Your task to perform on an android device: turn on translation in the chrome app Image 0: 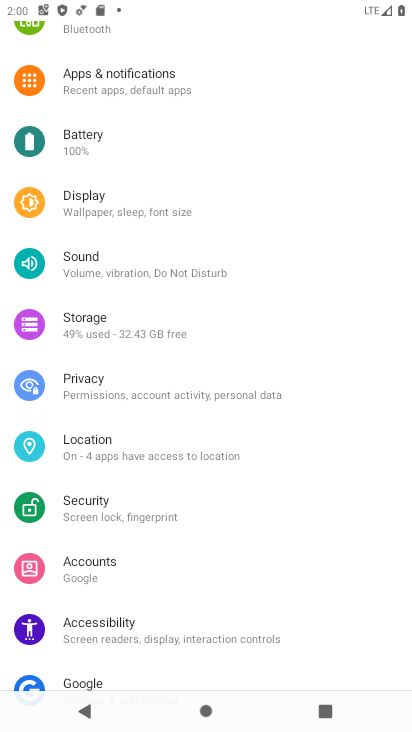
Step 0: press home button
Your task to perform on an android device: turn on translation in the chrome app Image 1: 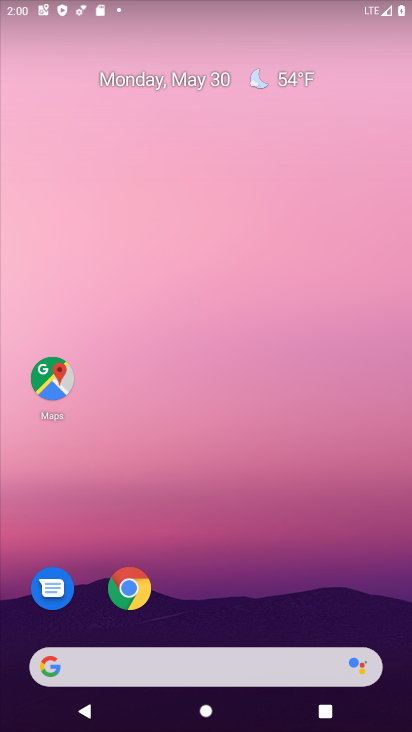
Step 1: click (125, 587)
Your task to perform on an android device: turn on translation in the chrome app Image 2: 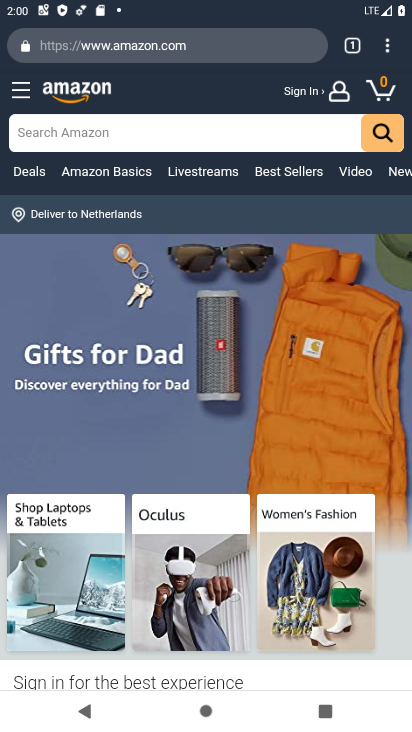
Step 2: click (383, 44)
Your task to perform on an android device: turn on translation in the chrome app Image 3: 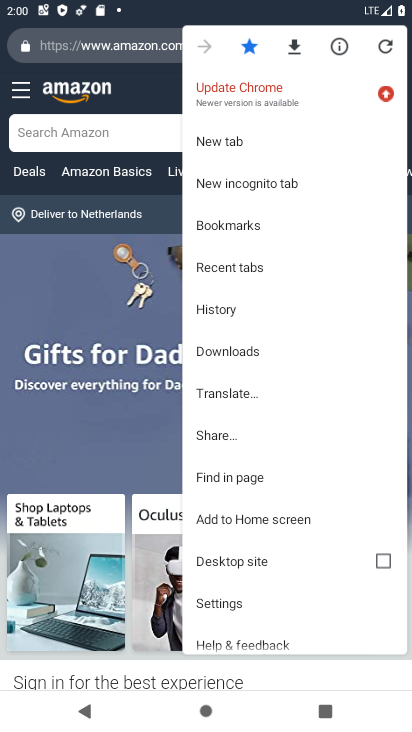
Step 3: drag from (301, 533) to (325, 180)
Your task to perform on an android device: turn on translation in the chrome app Image 4: 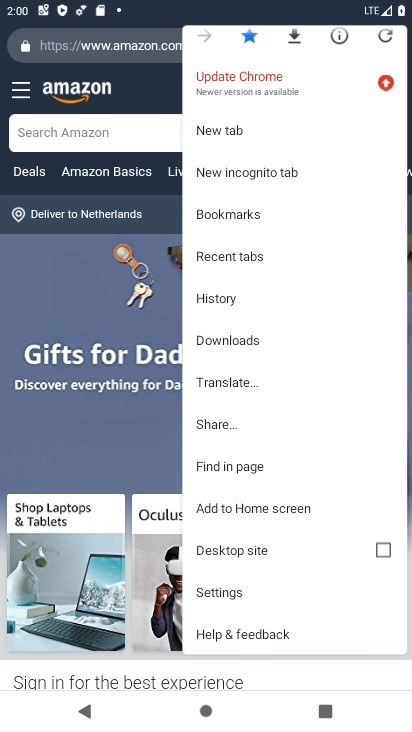
Step 4: click (243, 596)
Your task to perform on an android device: turn on translation in the chrome app Image 5: 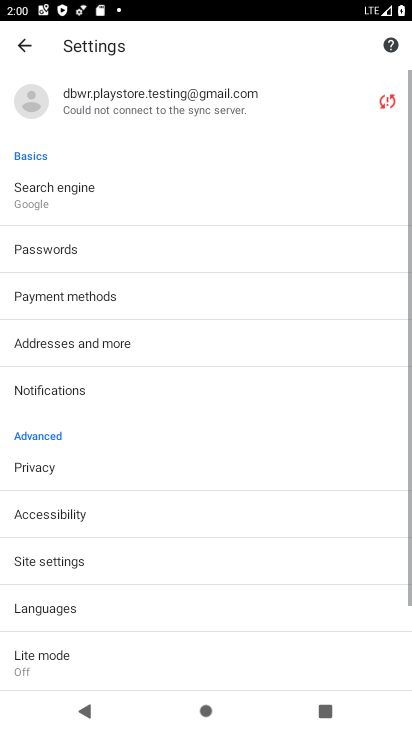
Step 5: drag from (229, 605) to (197, 243)
Your task to perform on an android device: turn on translation in the chrome app Image 6: 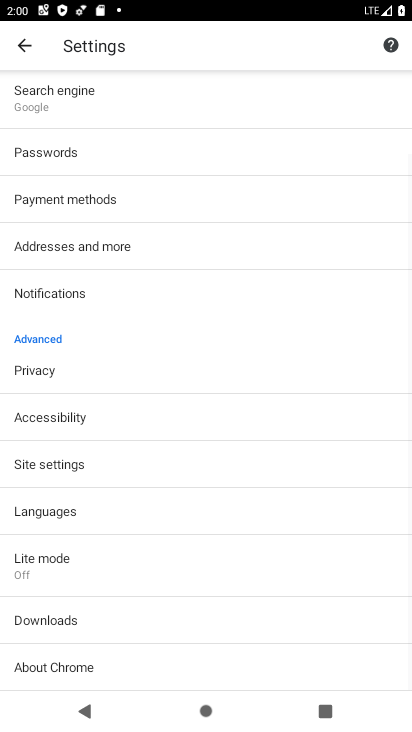
Step 6: click (73, 517)
Your task to perform on an android device: turn on translation in the chrome app Image 7: 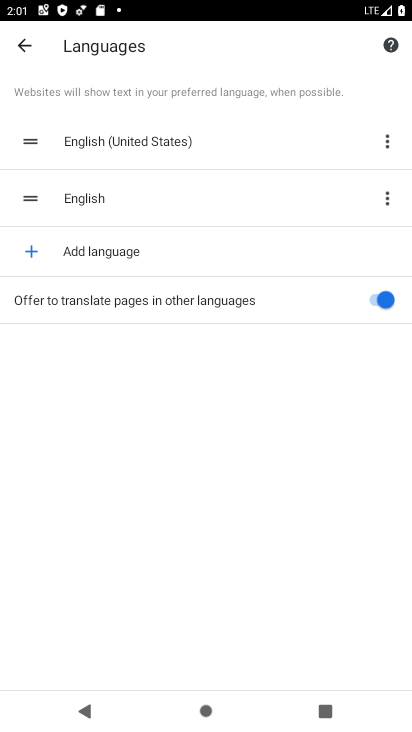
Step 7: task complete